Your task to perform on an android device: Go to Wikipedia Image 0: 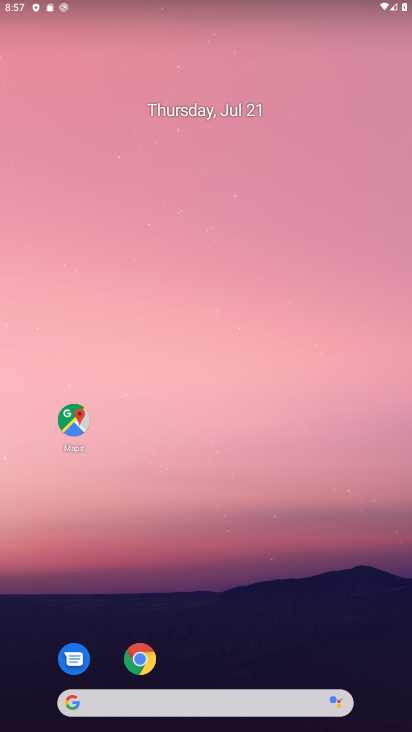
Step 0: click (139, 666)
Your task to perform on an android device: Go to Wikipedia Image 1: 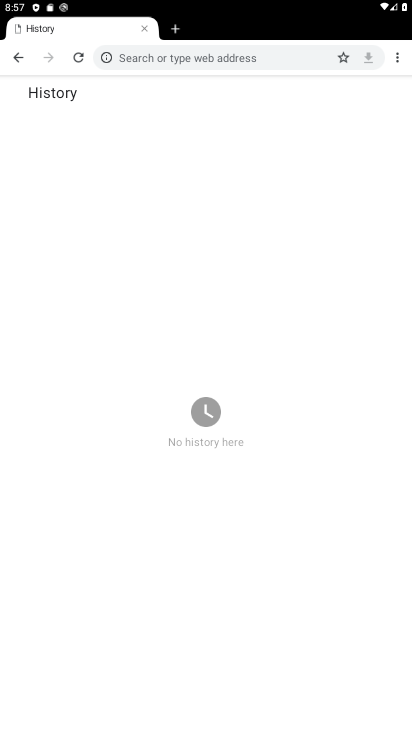
Step 1: click (174, 29)
Your task to perform on an android device: Go to Wikipedia Image 2: 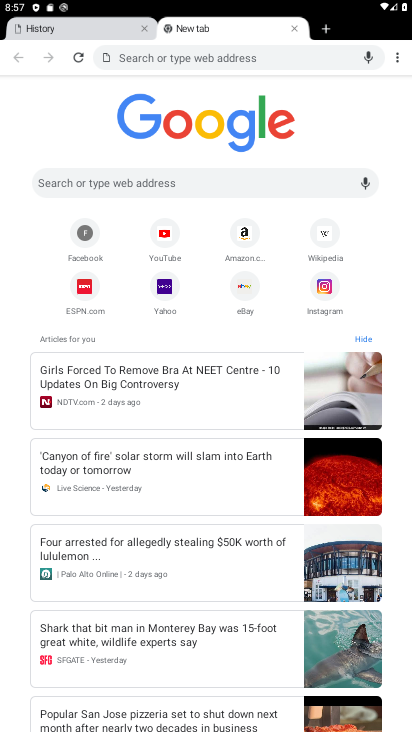
Step 2: click (321, 230)
Your task to perform on an android device: Go to Wikipedia Image 3: 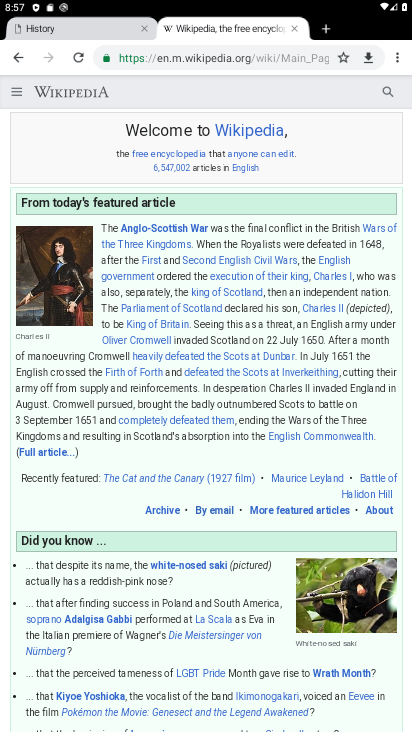
Step 3: task complete